Your task to perform on an android device: Open calendar and show me the third week of next month Image 0: 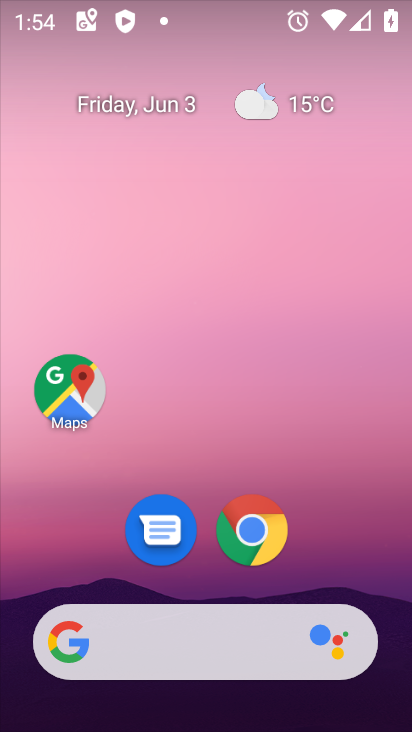
Step 0: press home button
Your task to perform on an android device: Open calendar and show me the third week of next month Image 1: 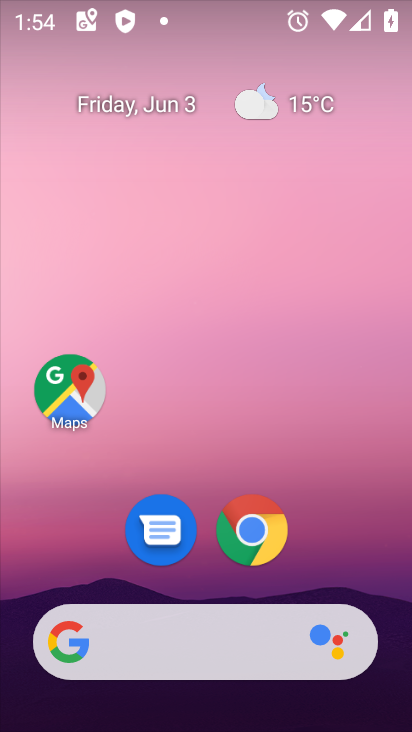
Step 1: drag from (349, 514) to (344, 130)
Your task to perform on an android device: Open calendar and show me the third week of next month Image 2: 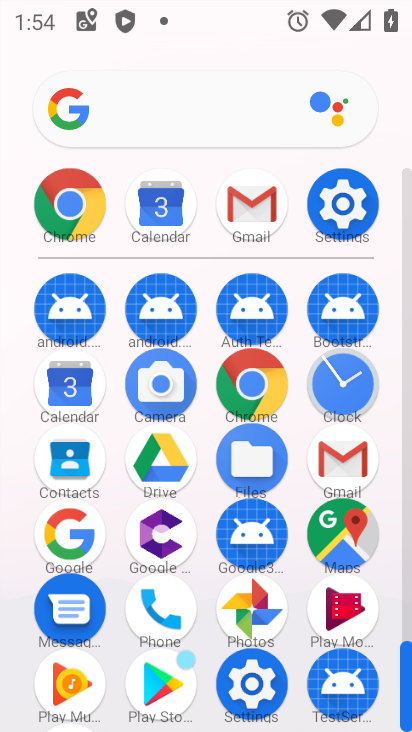
Step 2: click (87, 387)
Your task to perform on an android device: Open calendar and show me the third week of next month Image 3: 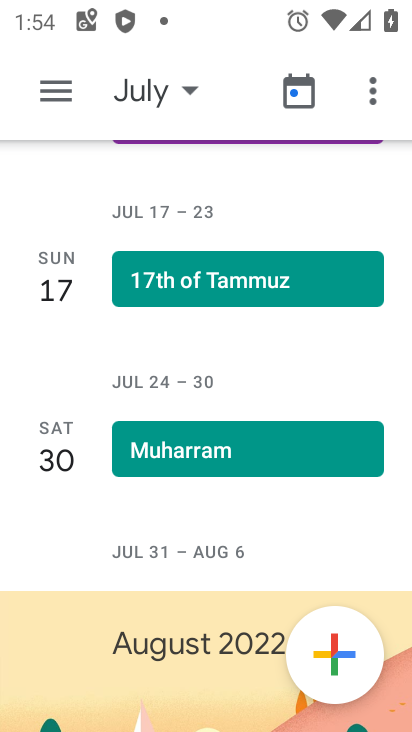
Step 3: click (50, 91)
Your task to perform on an android device: Open calendar and show me the third week of next month Image 4: 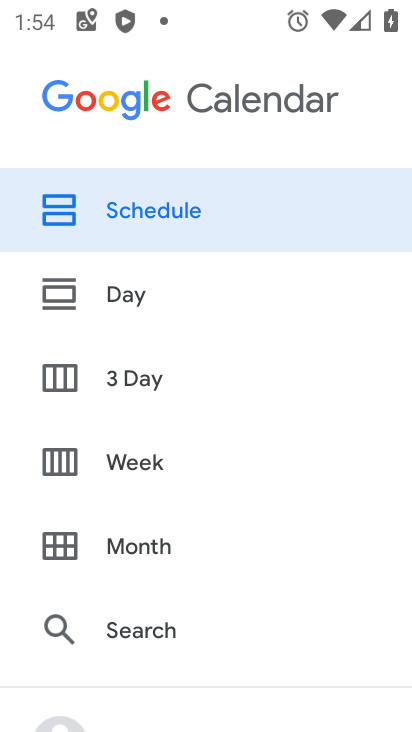
Step 4: click (152, 455)
Your task to perform on an android device: Open calendar and show me the third week of next month Image 5: 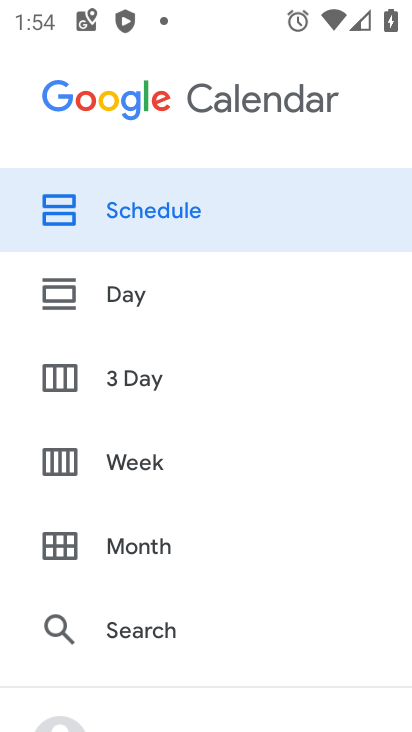
Step 5: click (152, 465)
Your task to perform on an android device: Open calendar and show me the third week of next month Image 6: 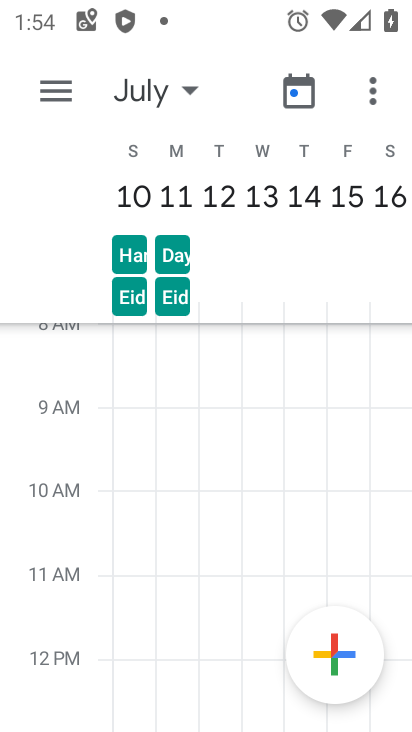
Step 6: task complete